Your task to perform on an android device: Search for Mexican restaurants on Maps Image 0: 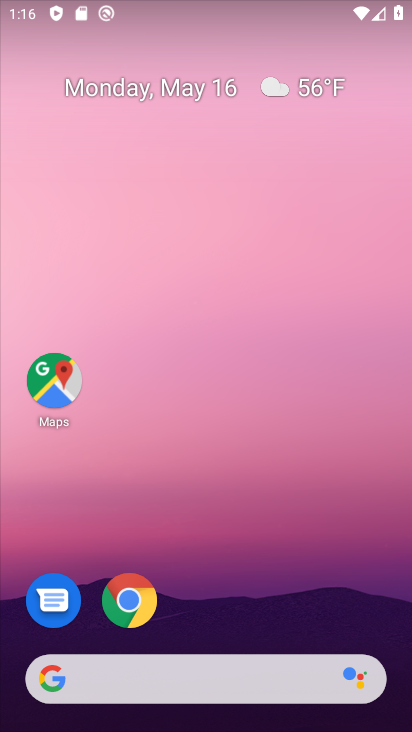
Step 0: click (46, 389)
Your task to perform on an android device: Search for Mexican restaurants on Maps Image 1: 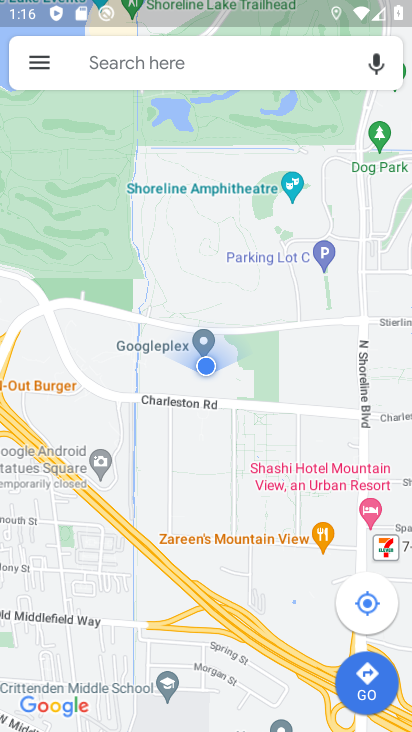
Step 1: click (202, 64)
Your task to perform on an android device: Search for Mexican restaurants on Maps Image 2: 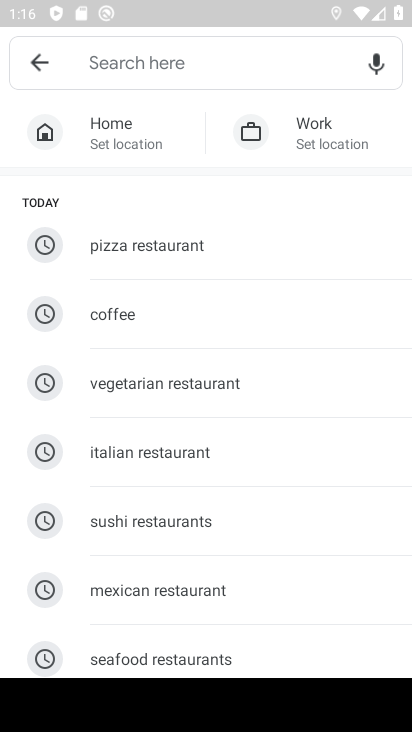
Step 2: click (190, 592)
Your task to perform on an android device: Search for Mexican restaurants on Maps Image 3: 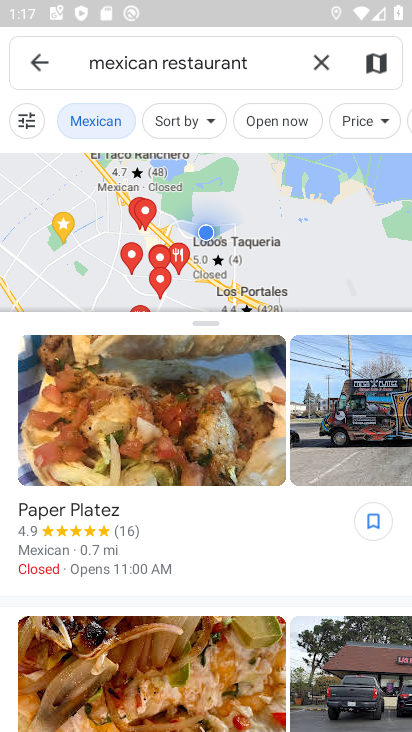
Step 3: task complete